Your task to perform on an android device: Go to eBay Image 0: 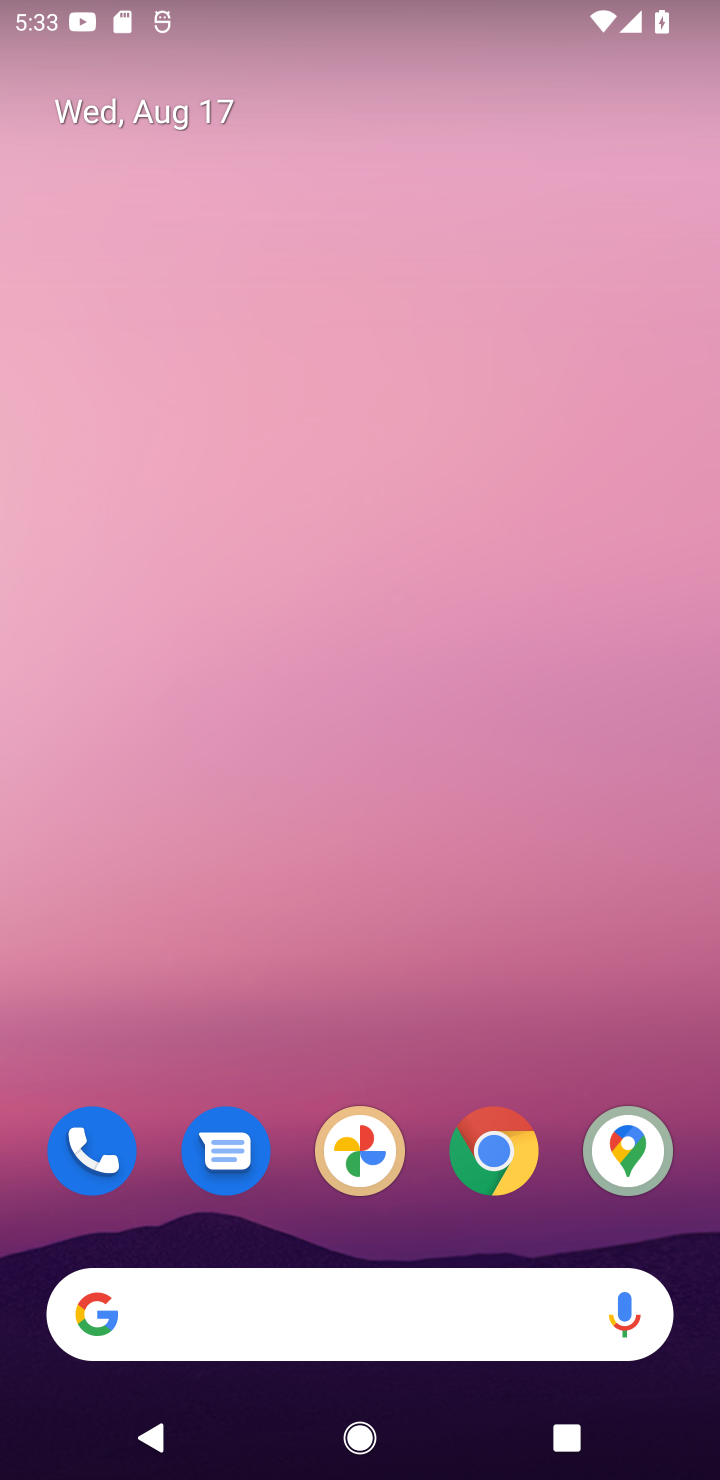
Step 0: drag from (418, 1229) to (434, 346)
Your task to perform on an android device: Go to eBay Image 1: 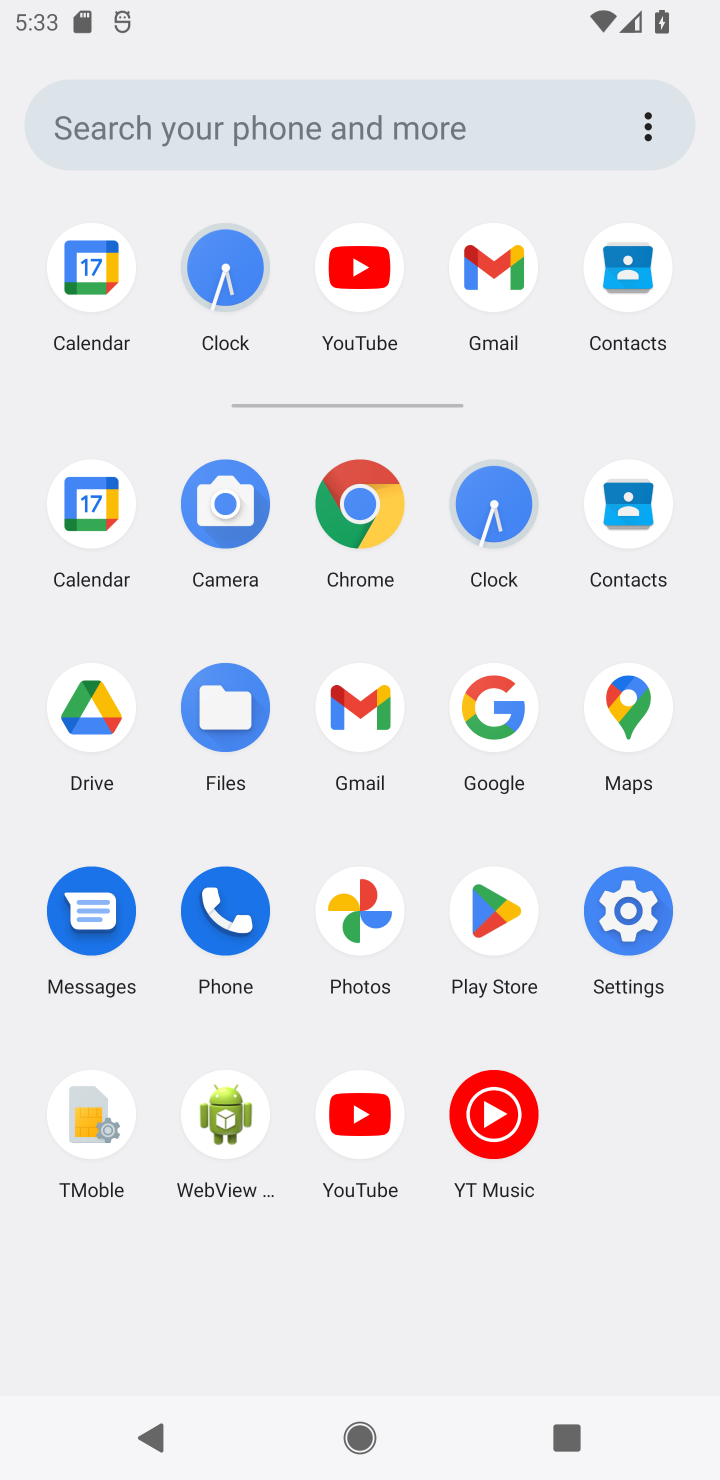
Step 1: click (365, 507)
Your task to perform on an android device: Go to eBay Image 2: 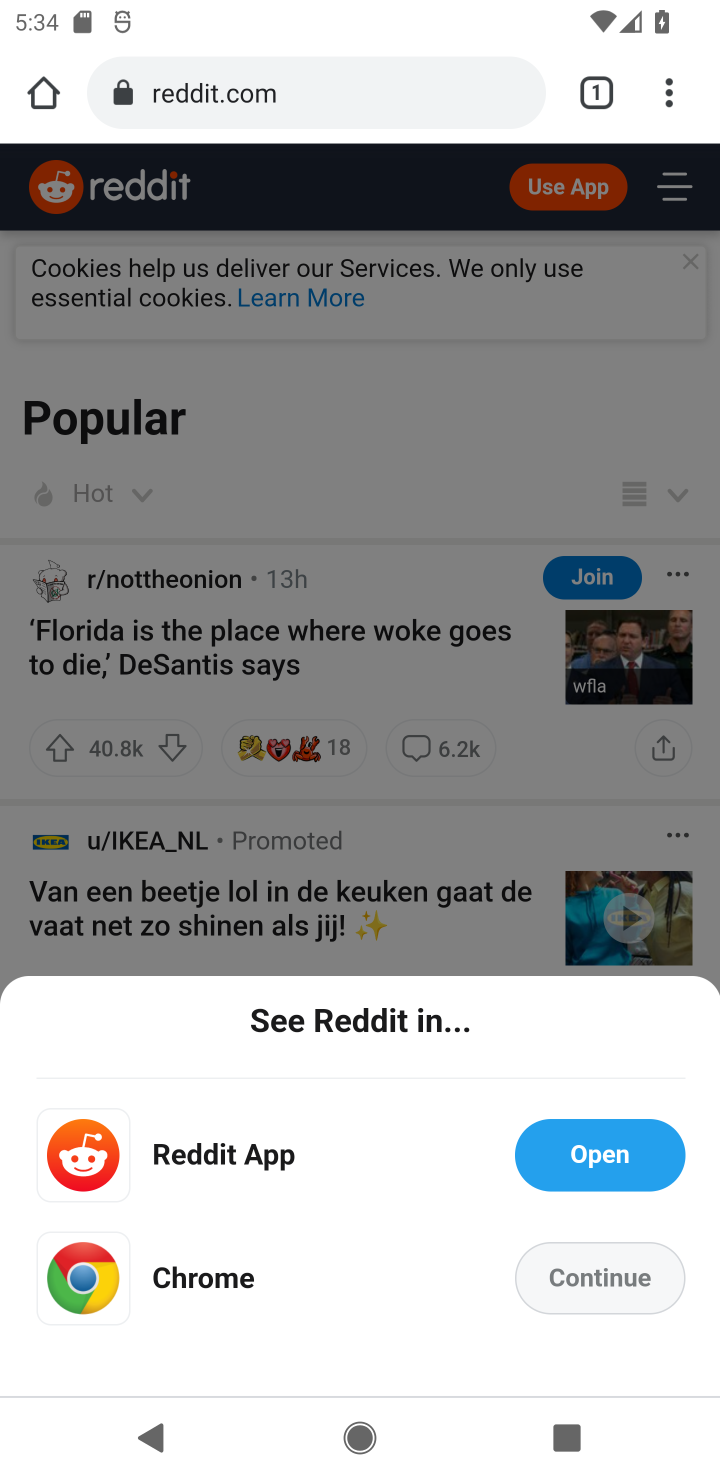
Step 2: click (131, 1251)
Your task to perform on an android device: Go to eBay Image 3: 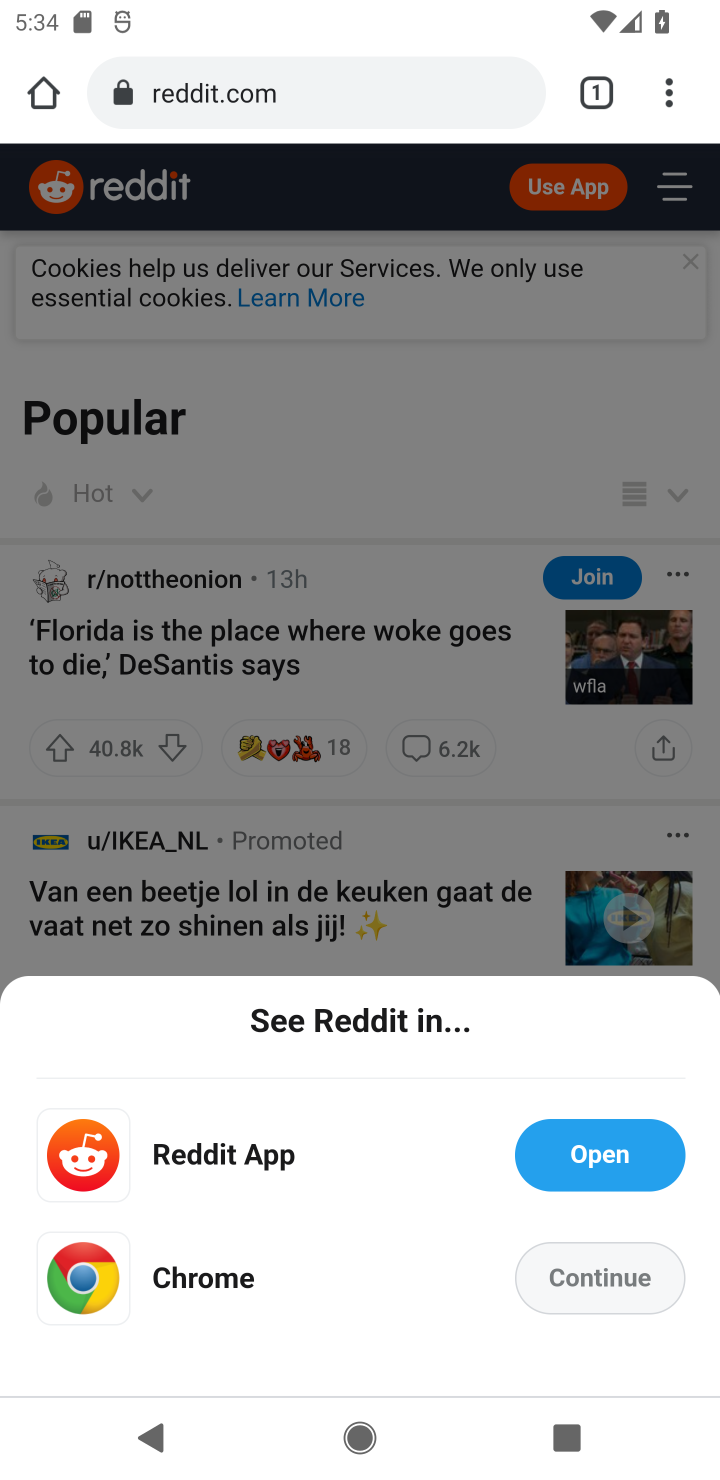
Step 3: click (563, 1277)
Your task to perform on an android device: Go to eBay Image 4: 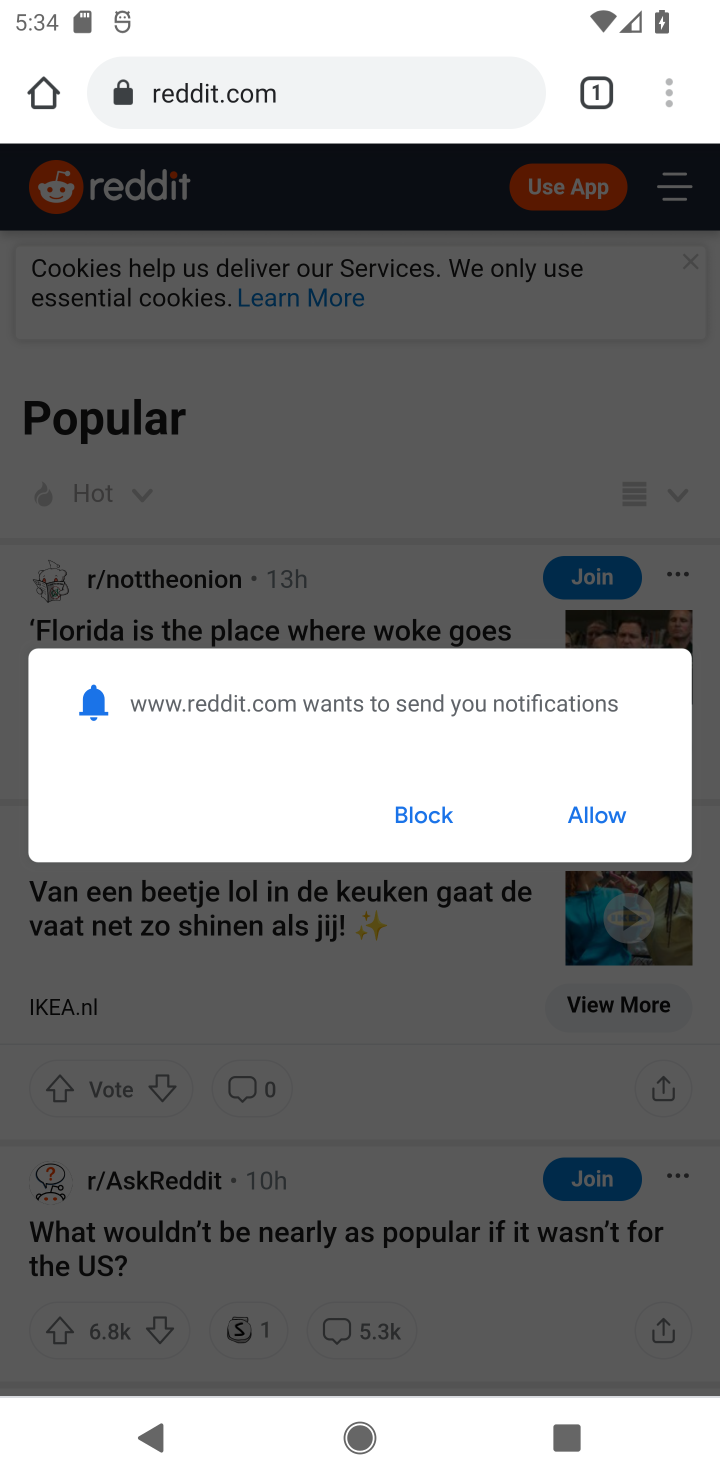
Step 4: click (557, 802)
Your task to perform on an android device: Go to eBay Image 5: 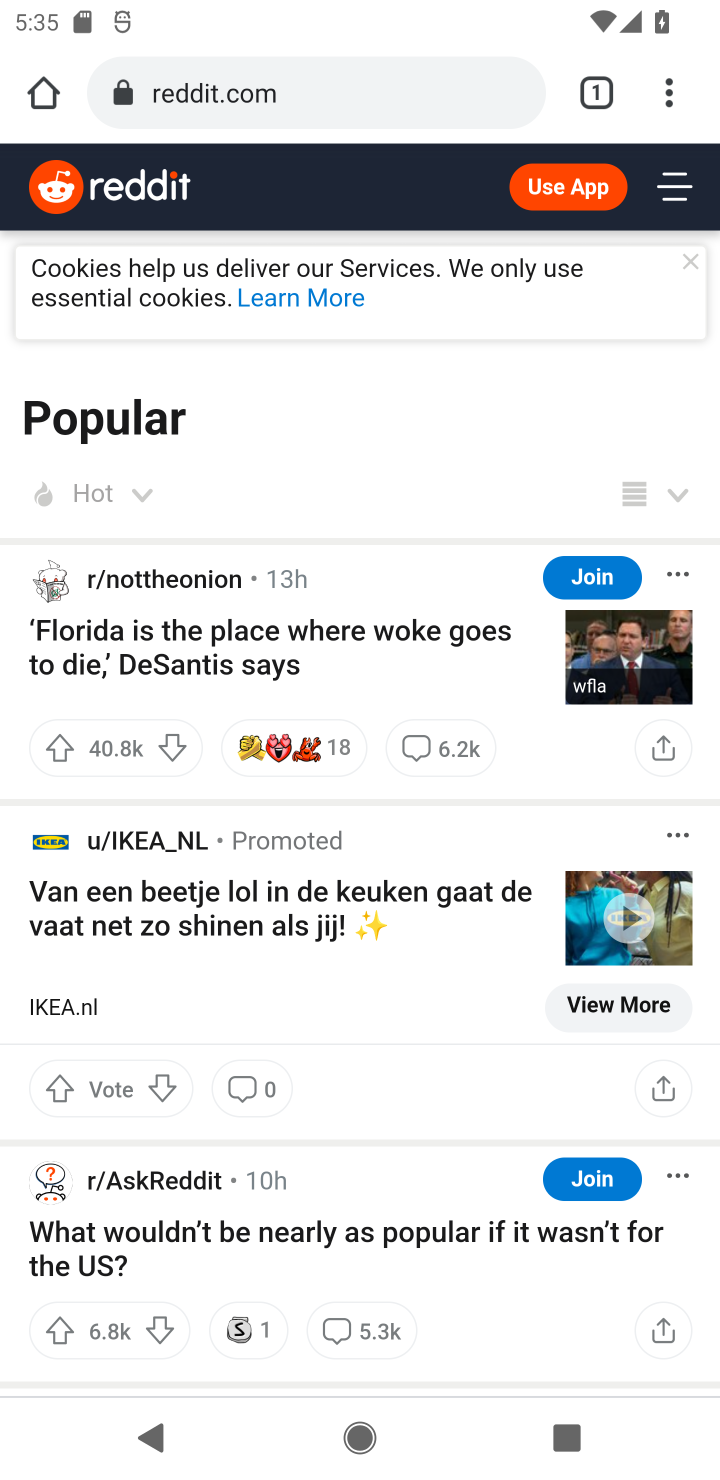
Step 5: click (352, 95)
Your task to perform on an android device: Go to eBay Image 6: 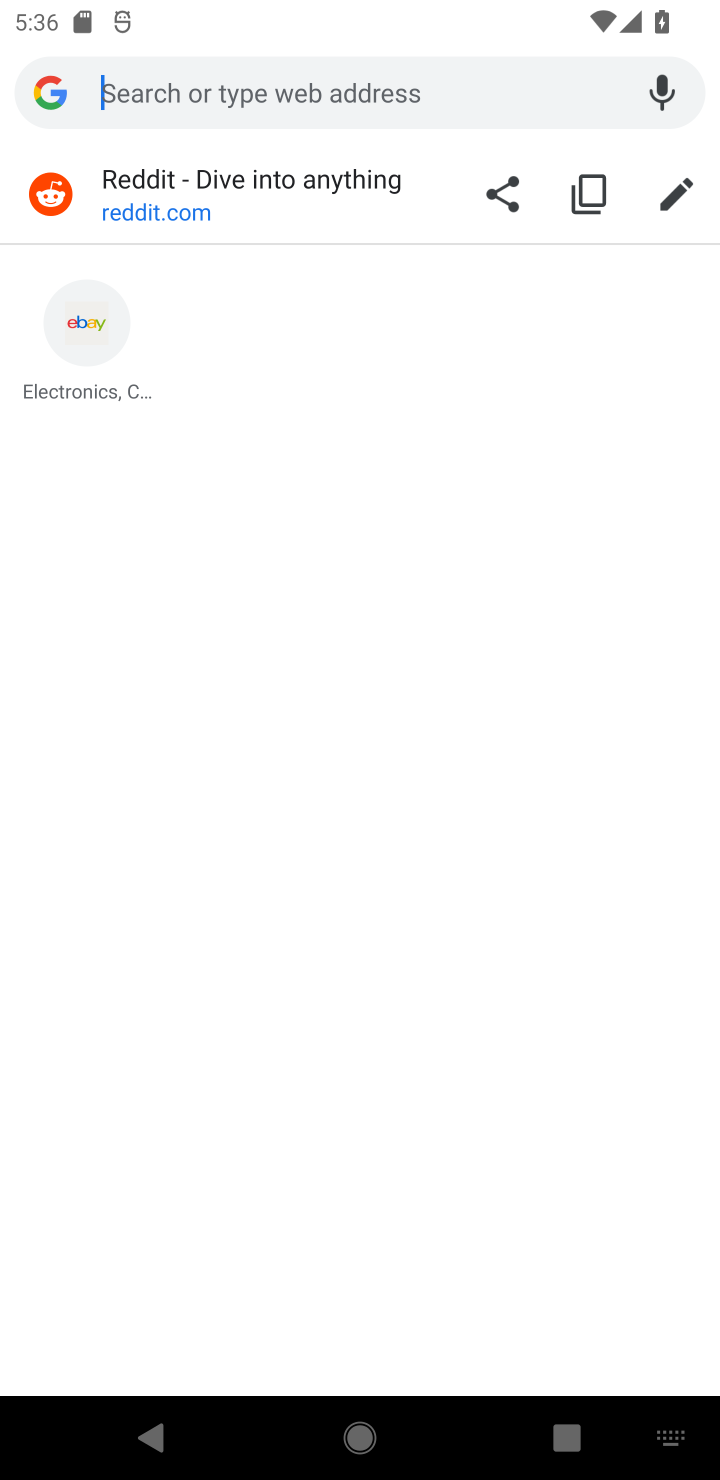
Step 6: type "ebay"
Your task to perform on an android device: Go to eBay Image 7: 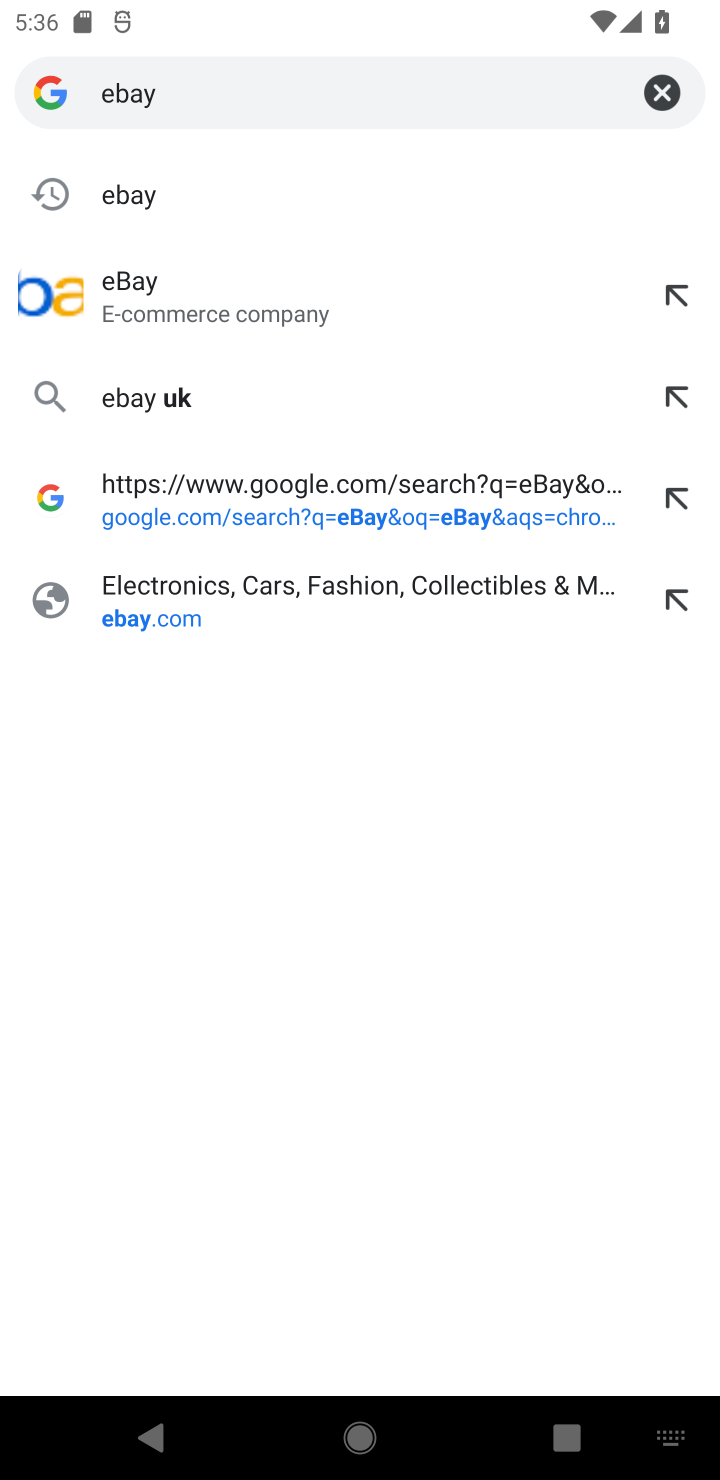
Step 7: click (147, 327)
Your task to perform on an android device: Go to eBay Image 8: 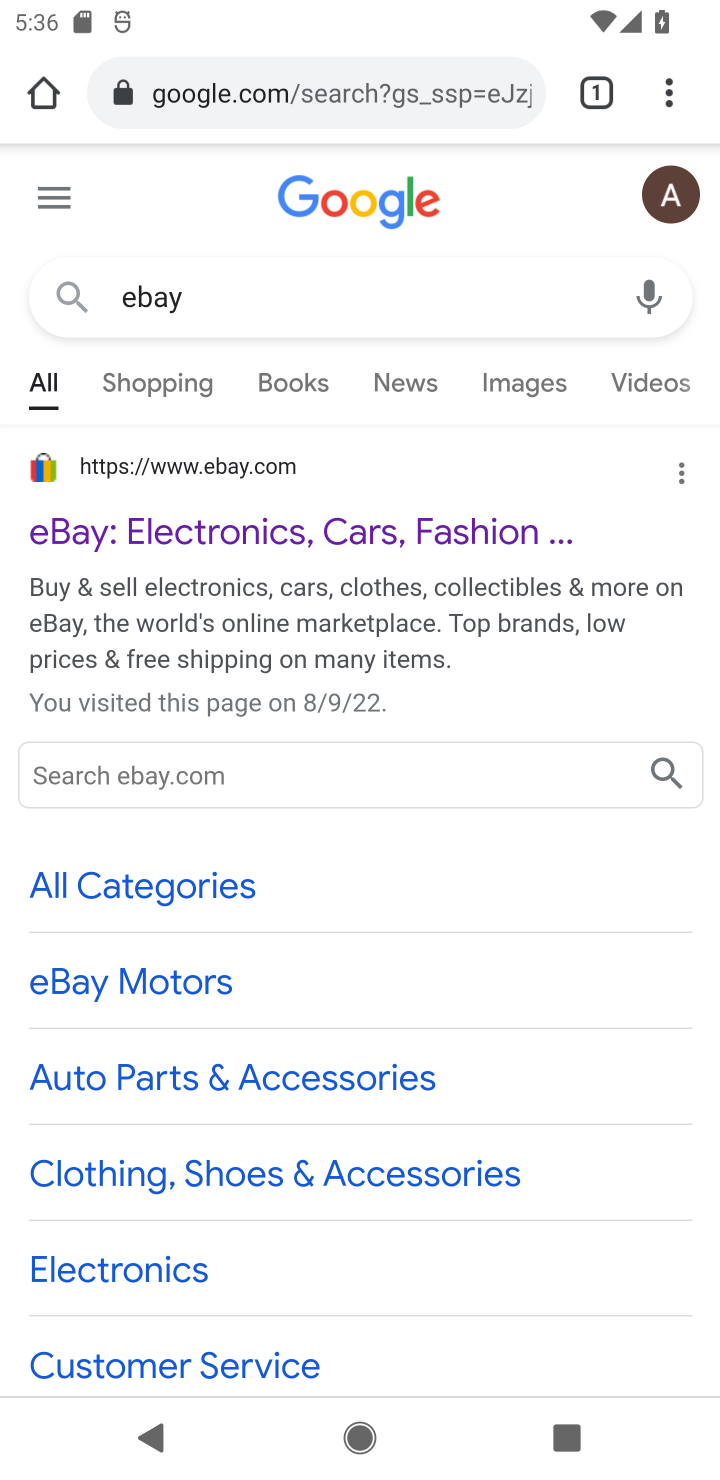
Step 8: click (303, 512)
Your task to perform on an android device: Go to eBay Image 9: 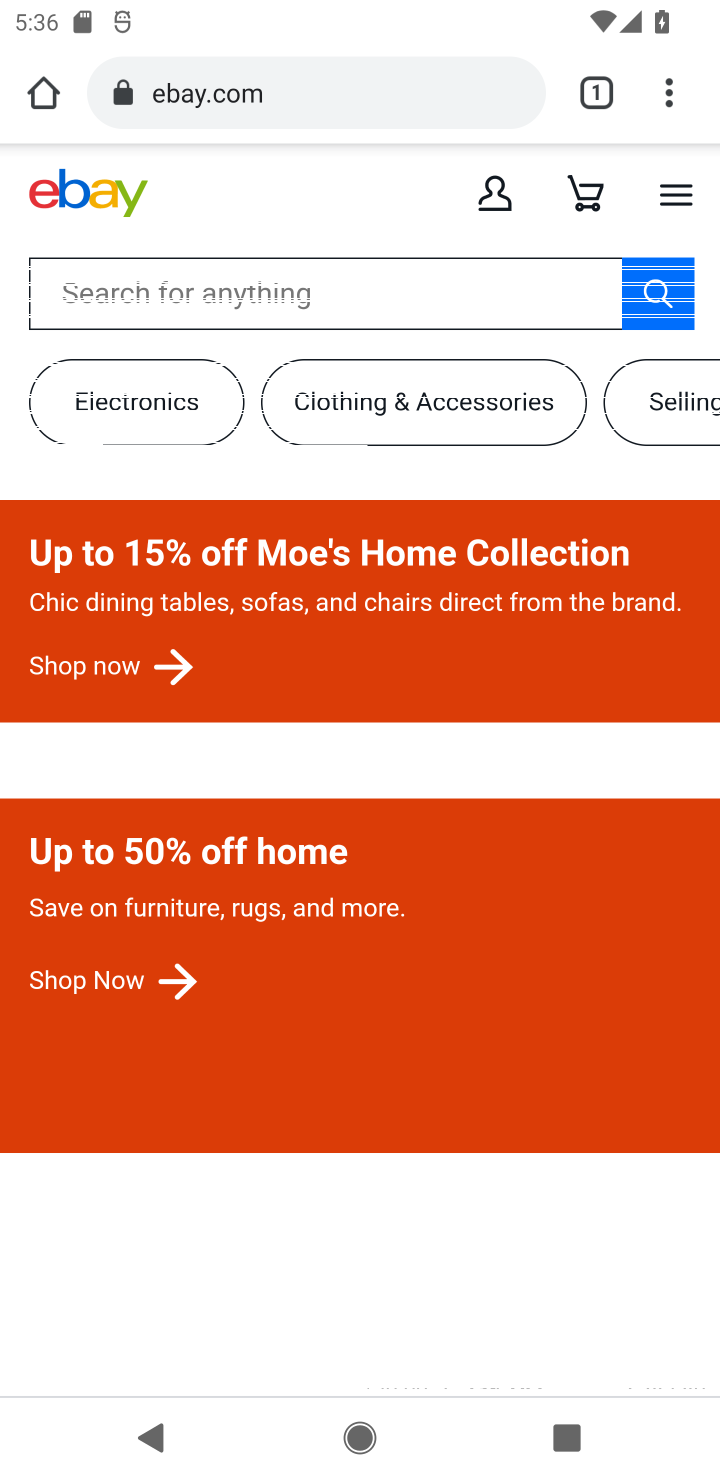
Step 9: task complete